Your task to perform on an android device: turn on sleep mode Image 0: 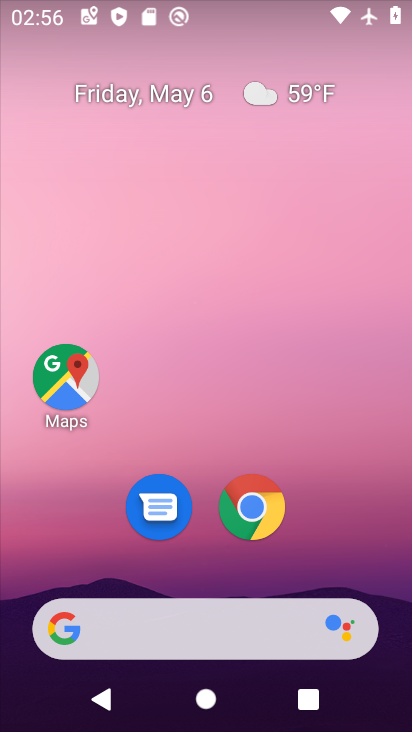
Step 0: drag from (334, 547) to (334, 132)
Your task to perform on an android device: turn on sleep mode Image 1: 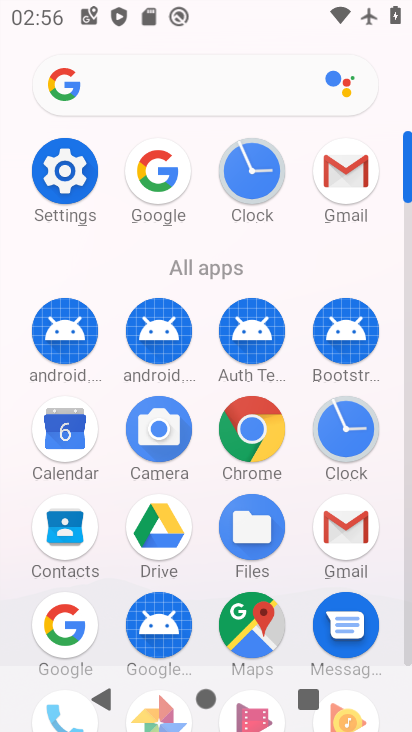
Step 1: click (61, 187)
Your task to perform on an android device: turn on sleep mode Image 2: 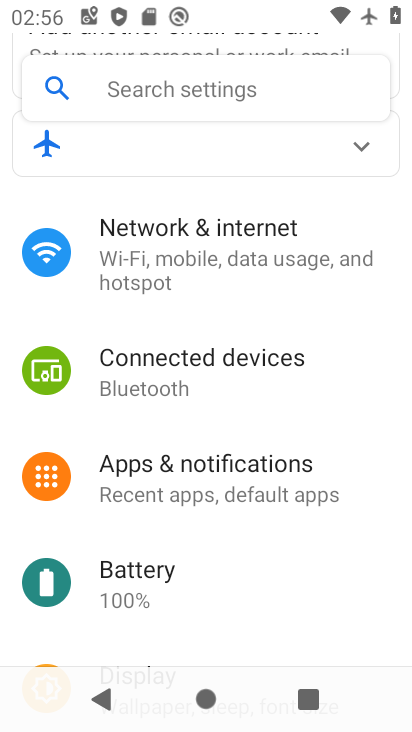
Step 2: drag from (202, 613) to (190, 392)
Your task to perform on an android device: turn on sleep mode Image 3: 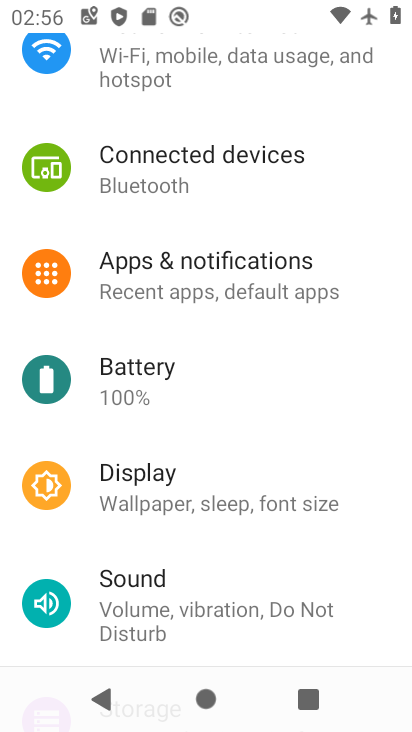
Step 3: drag from (183, 606) to (180, 524)
Your task to perform on an android device: turn on sleep mode Image 4: 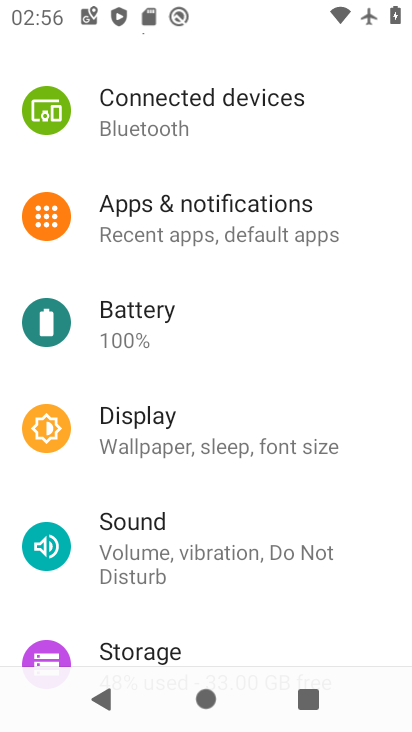
Step 4: click (169, 446)
Your task to perform on an android device: turn on sleep mode Image 5: 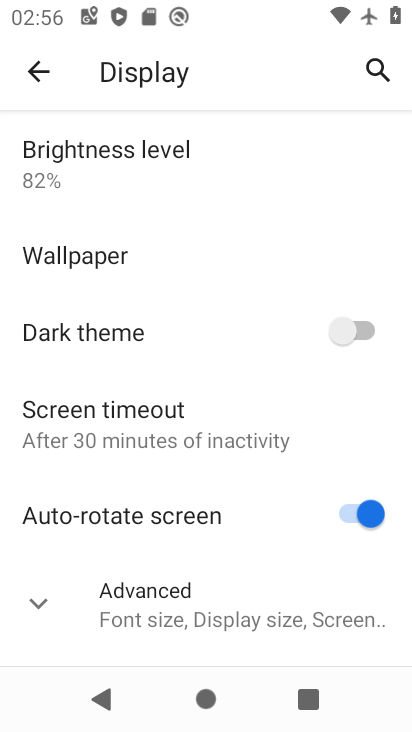
Step 5: click (45, 602)
Your task to perform on an android device: turn on sleep mode Image 6: 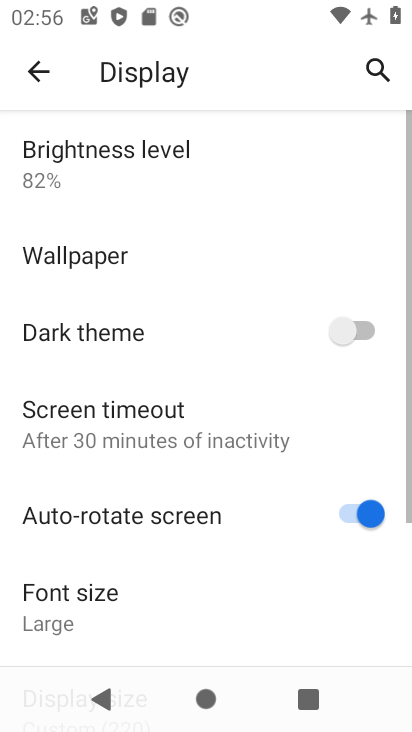
Step 6: task complete